Your task to perform on an android device: toggle translation in the chrome app Image 0: 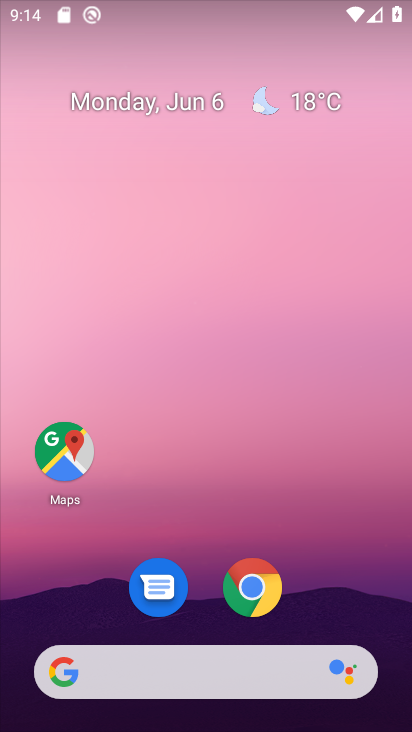
Step 0: click (256, 589)
Your task to perform on an android device: toggle translation in the chrome app Image 1: 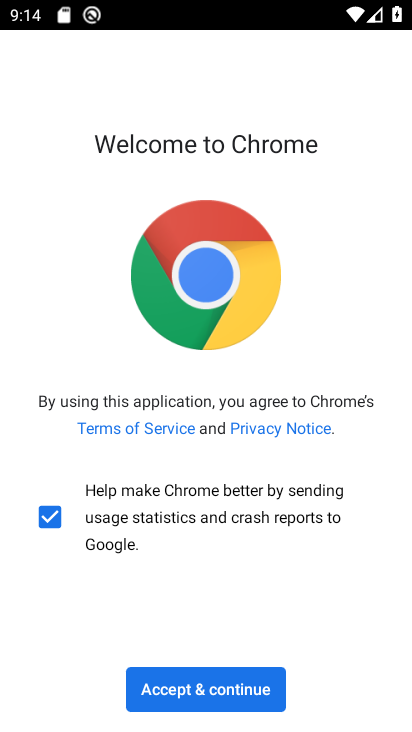
Step 1: click (220, 697)
Your task to perform on an android device: toggle translation in the chrome app Image 2: 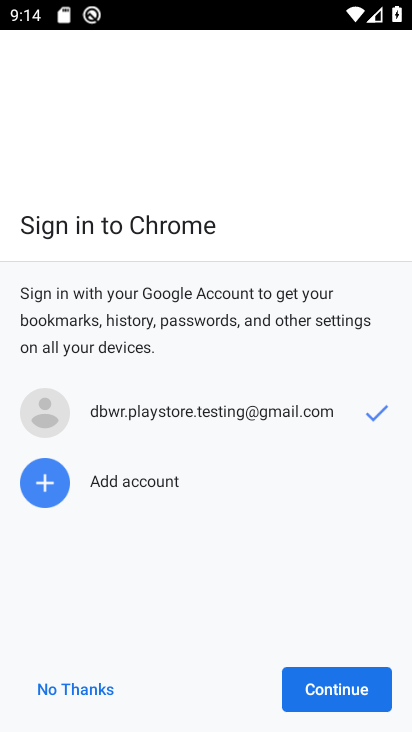
Step 2: click (301, 691)
Your task to perform on an android device: toggle translation in the chrome app Image 3: 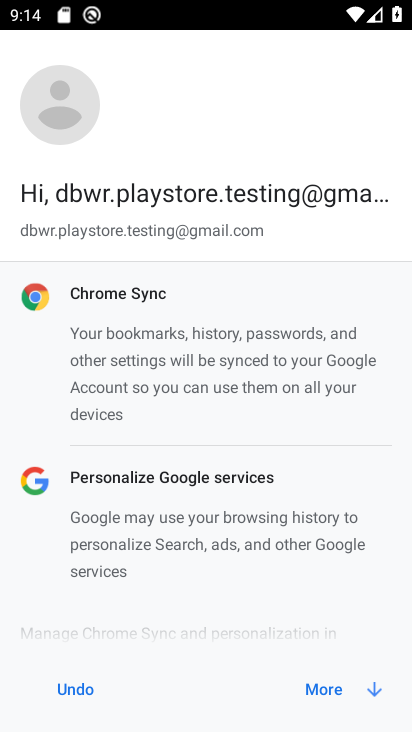
Step 3: click (303, 688)
Your task to perform on an android device: toggle translation in the chrome app Image 4: 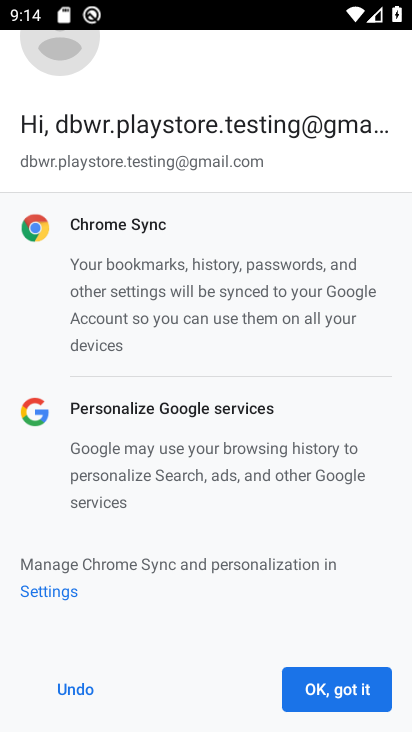
Step 4: click (323, 683)
Your task to perform on an android device: toggle translation in the chrome app Image 5: 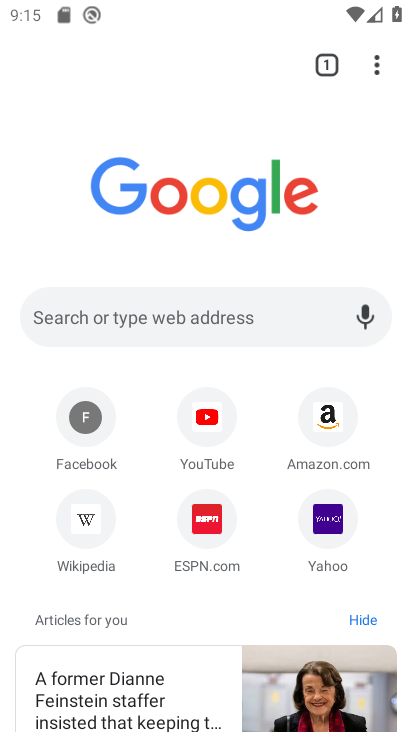
Step 5: drag from (386, 78) to (254, 539)
Your task to perform on an android device: toggle translation in the chrome app Image 6: 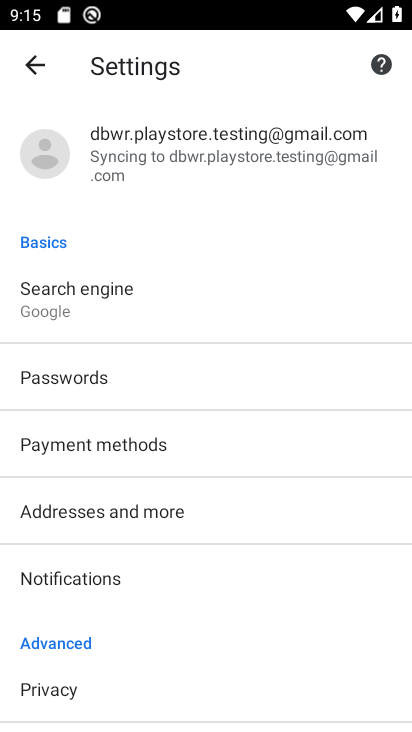
Step 6: drag from (167, 691) to (259, 355)
Your task to perform on an android device: toggle translation in the chrome app Image 7: 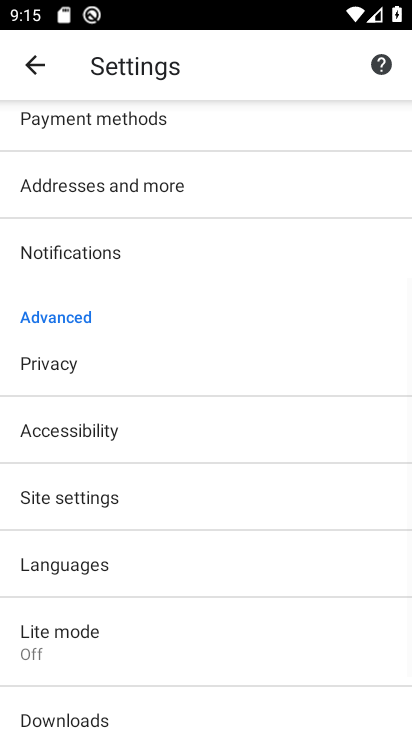
Step 7: click (190, 569)
Your task to perform on an android device: toggle translation in the chrome app Image 8: 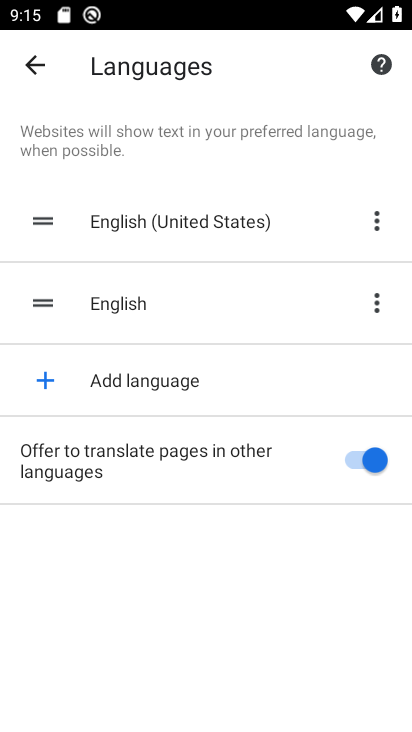
Step 8: click (358, 460)
Your task to perform on an android device: toggle translation in the chrome app Image 9: 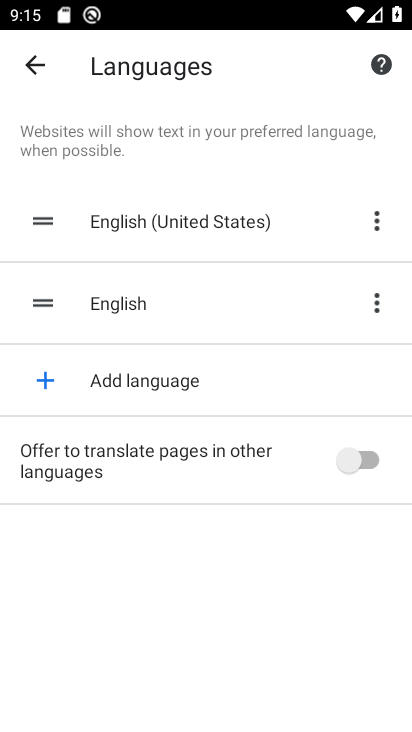
Step 9: task complete